Your task to perform on an android device: Search for seafood restaurants on Google Maps Image 0: 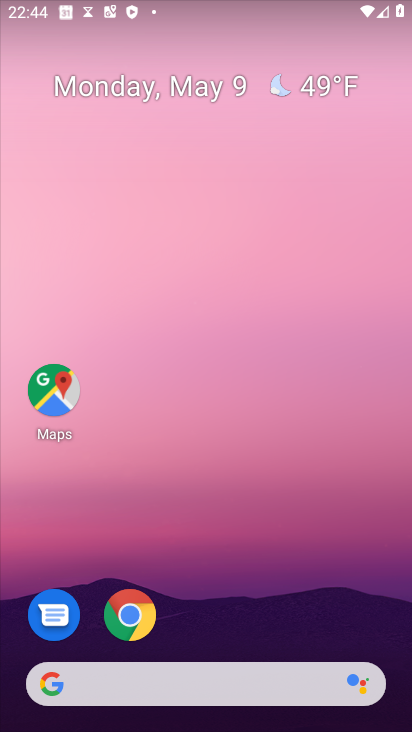
Step 0: click (55, 393)
Your task to perform on an android device: Search for seafood restaurants on Google Maps Image 1: 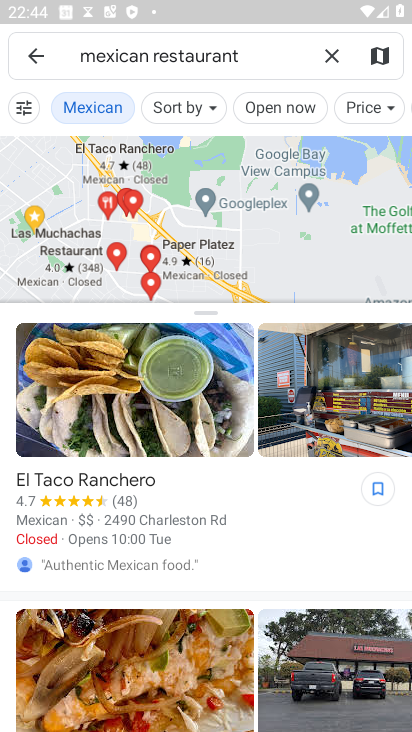
Step 1: click (336, 50)
Your task to perform on an android device: Search for seafood restaurants on Google Maps Image 2: 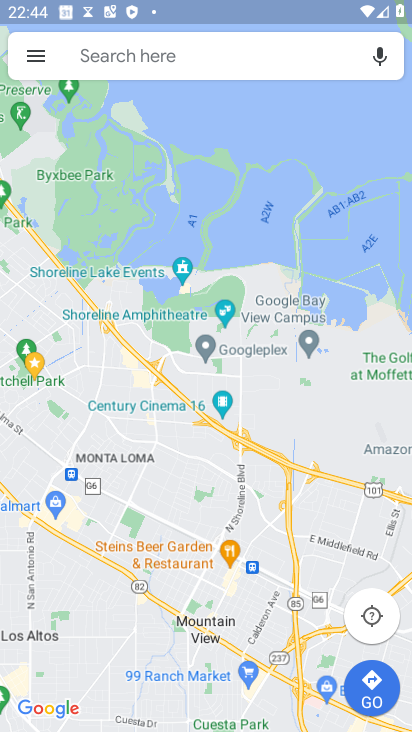
Step 2: click (186, 52)
Your task to perform on an android device: Search for seafood restaurants on Google Maps Image 3: 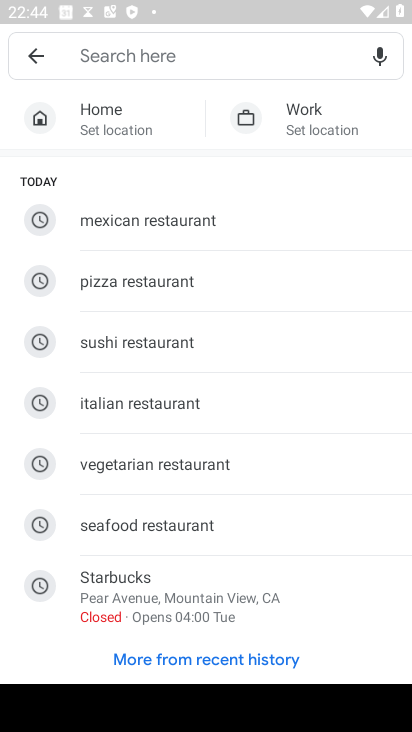
Step 3: click (147, 532)
Your task to perform on an android device: Search for seafood restaurants on Google Maps Image 4: 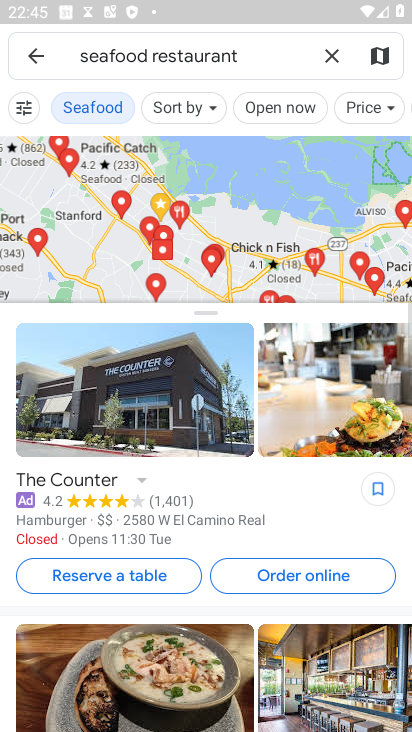
Step 4: task complete